Your task to perform on an android device: refresh tabs in the chrome app Image 0: 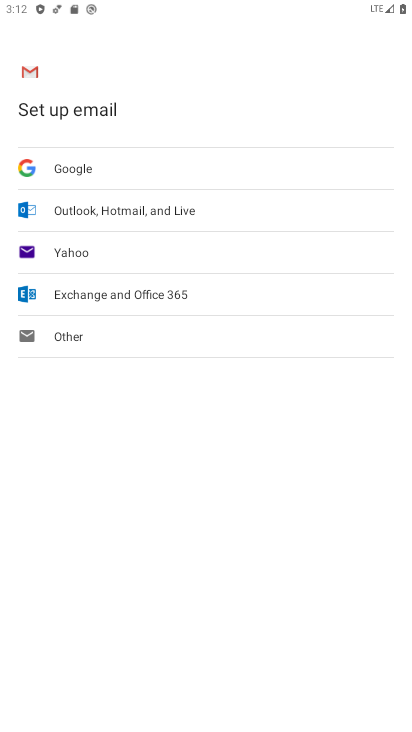
Step 0: press home button
Your task to perform on an android device: refresh tabs in the chrome app Image 1: 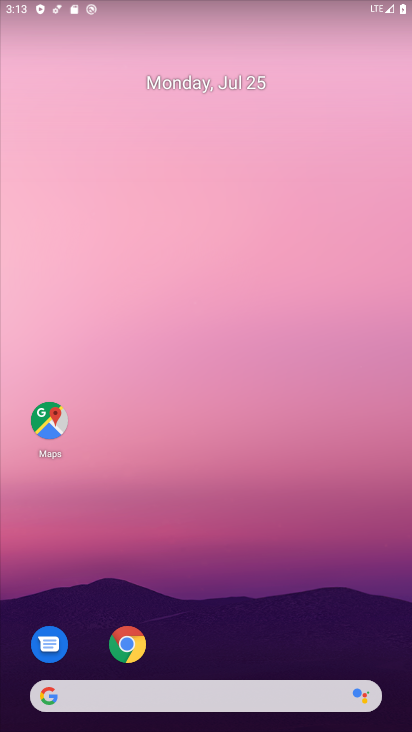
Step 1: click (129, 644)
Your task to perform on an android device: refresh tabs in the chrome app Image 2: 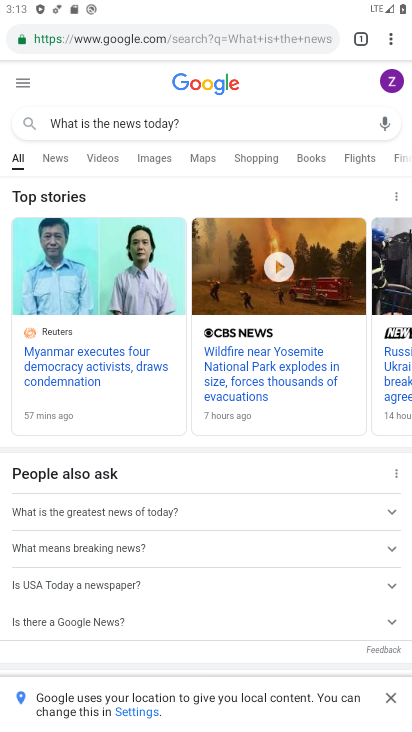
Step 2: click (393, 33)
Your task to perform on an android device: refresh tabs in the chrome app Image 3: 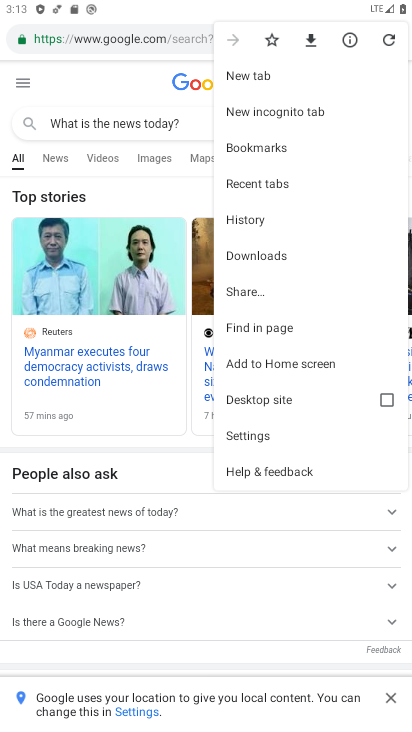
Step 3: click (383, 36)
Your task to perform on an android device: refresh tabs in the chrome app Image 4: 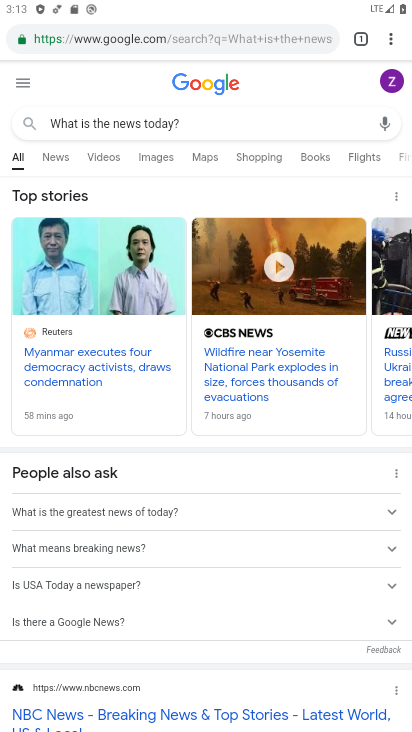
Step 4: task complete